Your task to perform on an android device: change your default location settings in chrome Image 0: 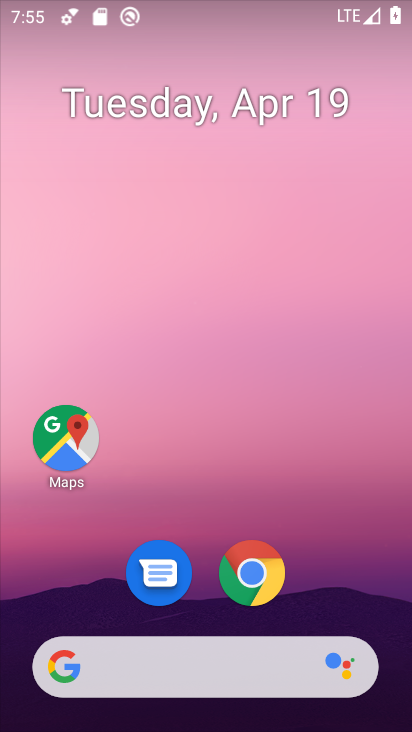
Step 0: drag from (341, 587) to (335, 182)
Your task to perform on an android device: change your default location settings in chrome Image 1: 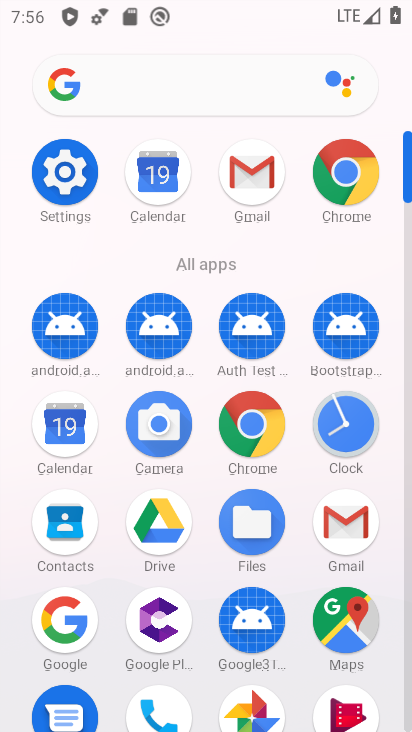
Step 1: click (250, 430)
Your task to perform on an android device: change your default location settings in chrome Image 2: 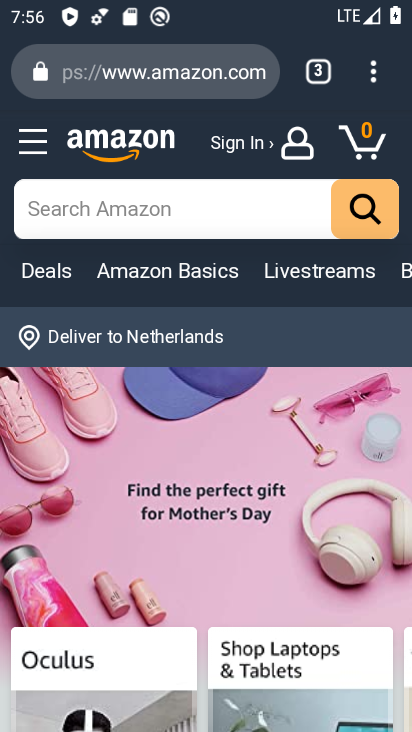
Step 2: drag from (377, 78) to (132, 583)
Your task to perform on an android device: change your default location settings in chrome Image 3: 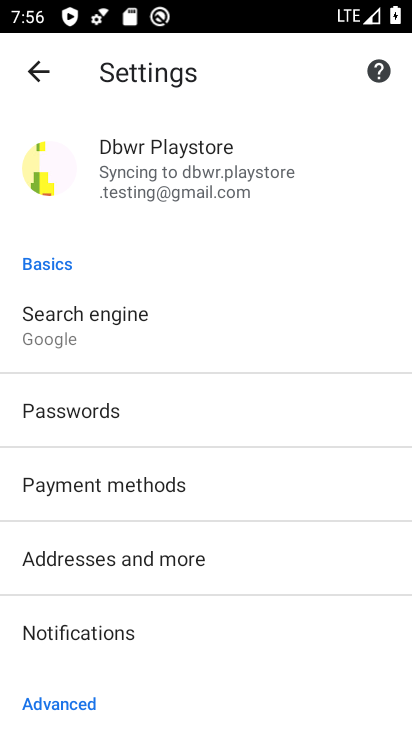
Step 3: drag from (239, 622) to (279, 162)
Your task to perform on an android device: change your default location settings in chrome Image 4: 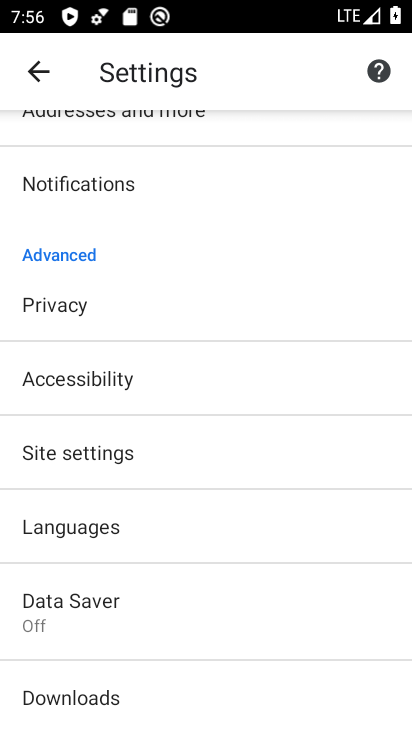
Step 4: click (73, 457)
Your task to perform on an android device: change your default location settings in chrome Image 5: 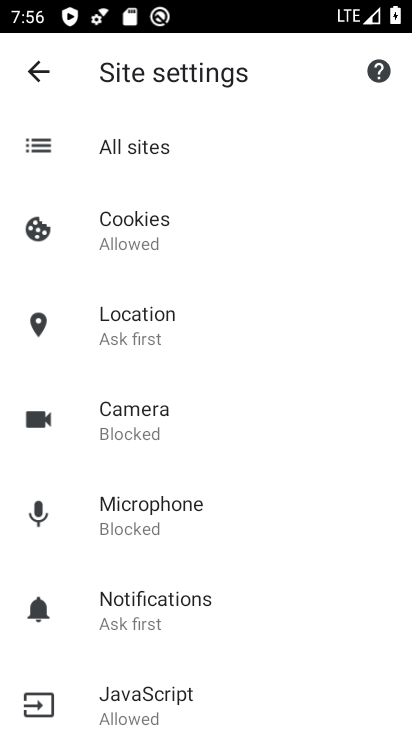
Step 5: drag from (180, 644) to (325, 244)
Your task to perform on an android device: change your default location settings in chrome Image 6: 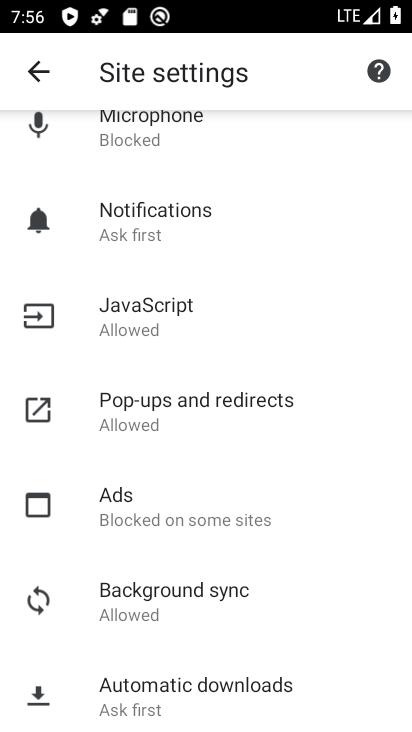
Step 6: drag from (206, 534) to (282, 111)
Your task to perform on an android device: change your default location settings in chrome Image 7: 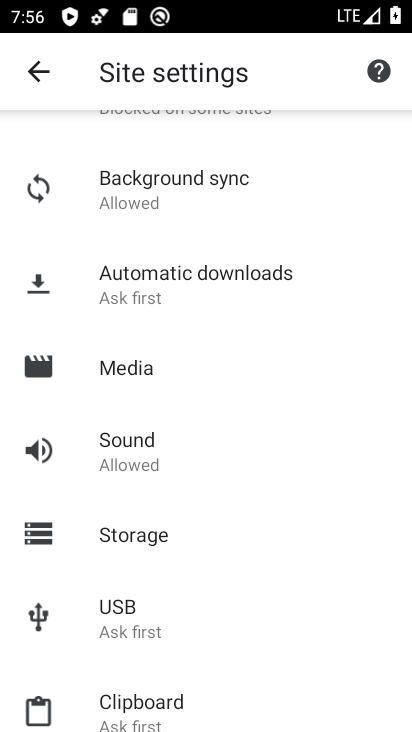
Step 7: drag from (250, 553) to (248, 211)
Your task to perform on an android device: change your default location settings in chrome Image 8: 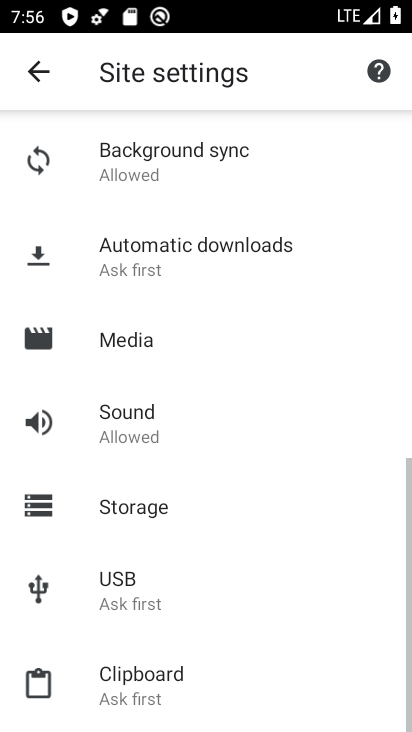
Step 8: drag from (337, 404) to (310, 232)
Your task to perform on an android device: change your default location settings in chrome Image 9: 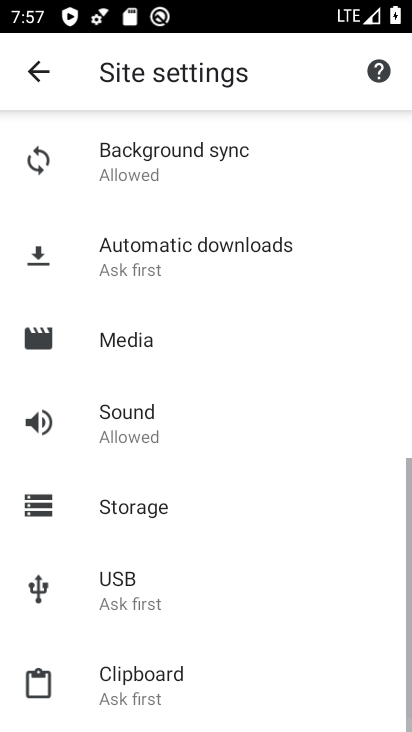
Step 9: drag from (293, 173) to (296, 579)
Your task to perform on an android device: change your default location settings in chrome Image 10: 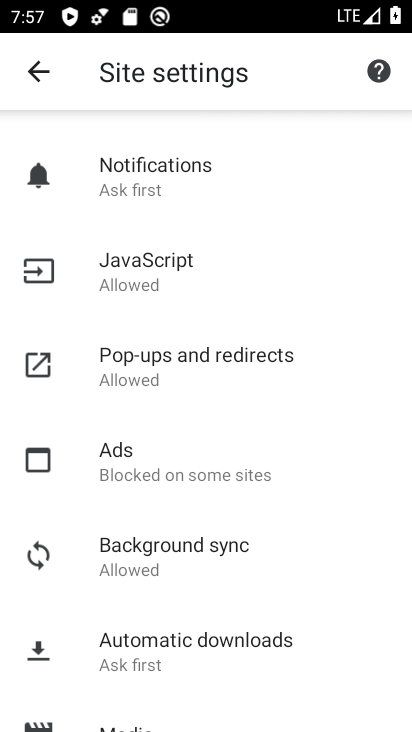
Step 10: drag from (262, 175) to (240, 633)
Your task to perform on an android device: change your default location settings in chrome Image 11: 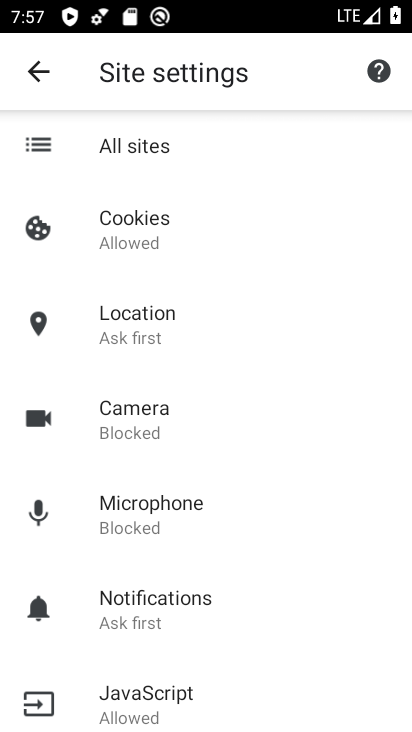
Step 11: click (137, 315)
Your task to perform on an android device: change your default location settings in chrome Image 12: 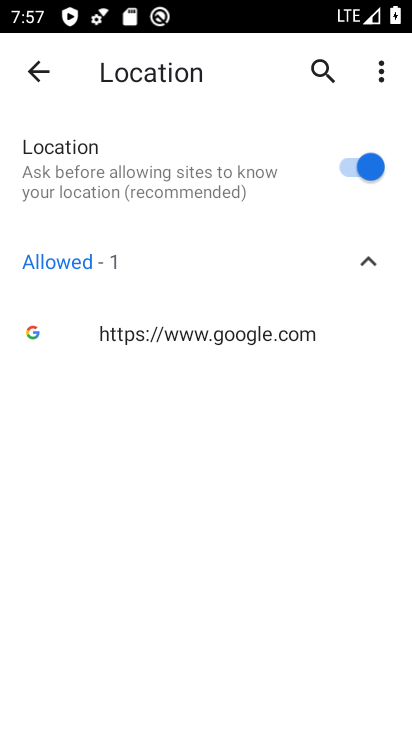
Step 12: click (343, 168)
Your task to perform on an android device: change your default location settings in chrome Image 13: 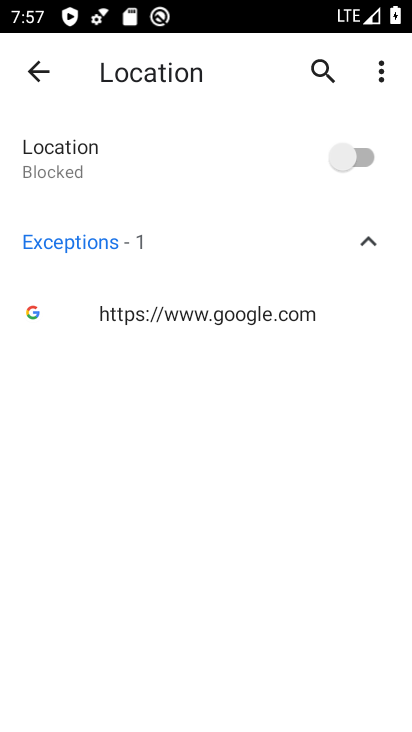
Step 13: task complete